Your task to perform on an android device: turn on data saver in the chrome app Image 0: 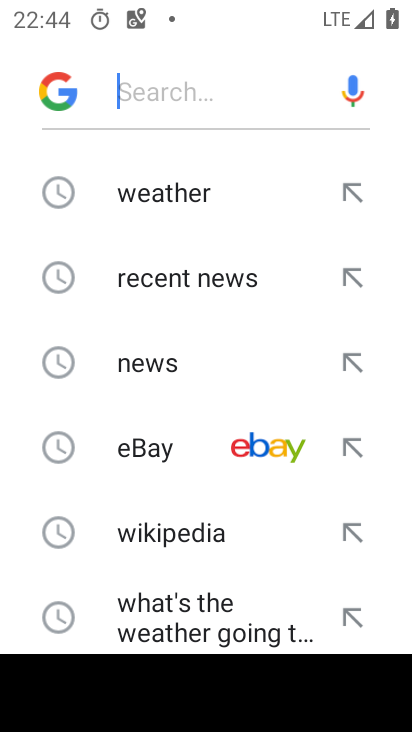
Step 0: press home button
Your task to perform on an android device: turn on data saver in the chrome app Image 1: 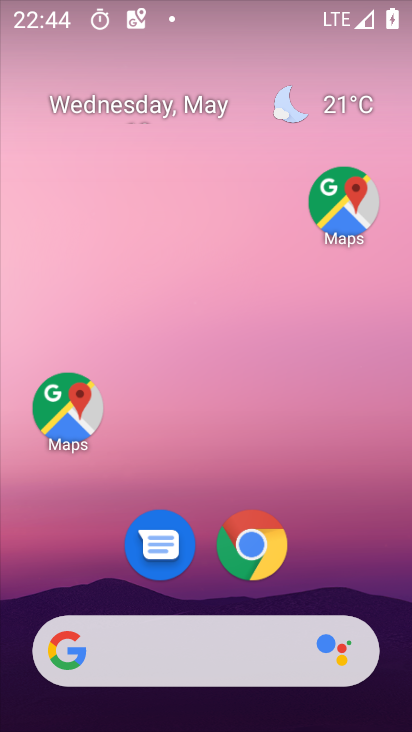
Step 1: click (255, 528)
Your task to perform on an android device: turn on data saver in the chrome app Image 2: 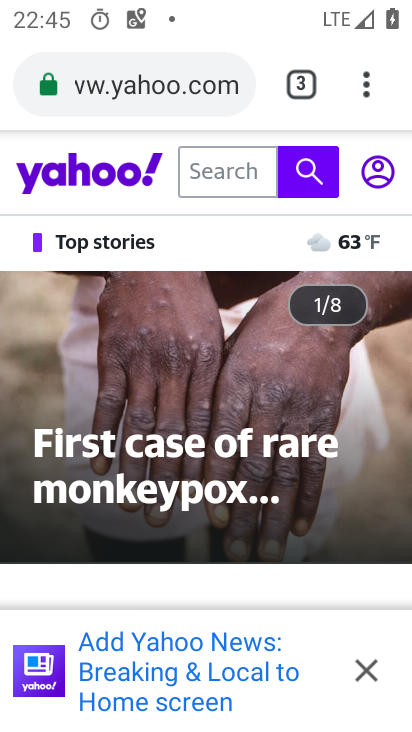
Step 2: click (373, 83)
Your task to perform on an android device: turn on data saver in the chrome app Image 3: 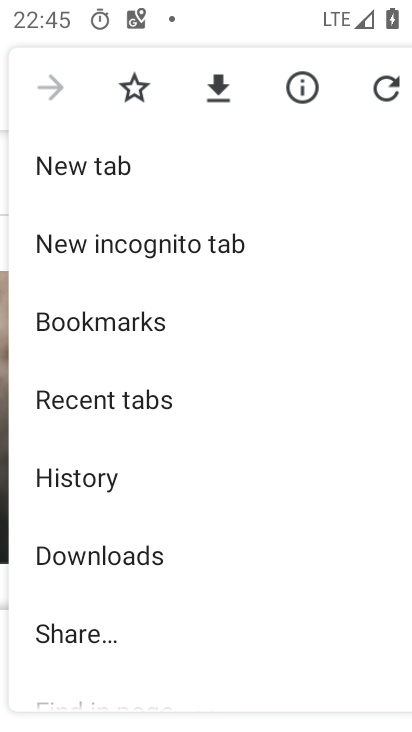
Step 3: drag from (161, 633) to (155, 299)
Your task to perform on an android device: turn on data saver in the chrome app Image 4: 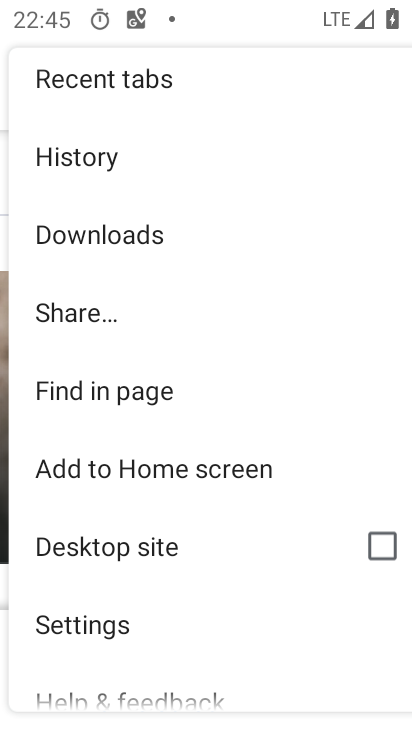
Step 4: click (93, 637)
Your task to perform on an android device: turn on data saver in the chrome app Image 5: 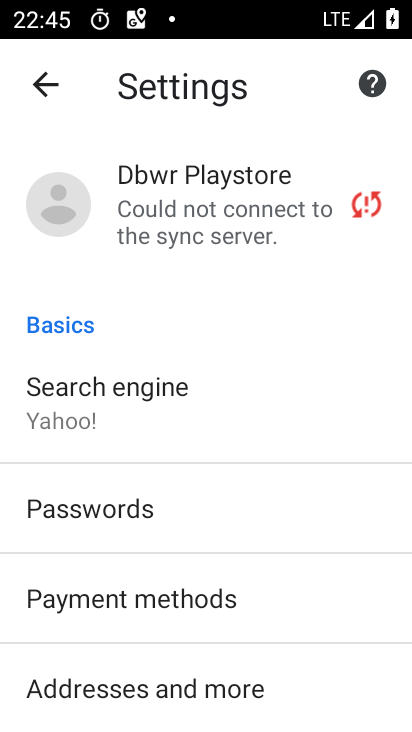
Step 5: drag from (173, 614) to (177, 338)
Your task to perform on an android device: turn on data saver in the chrome app Image 6: 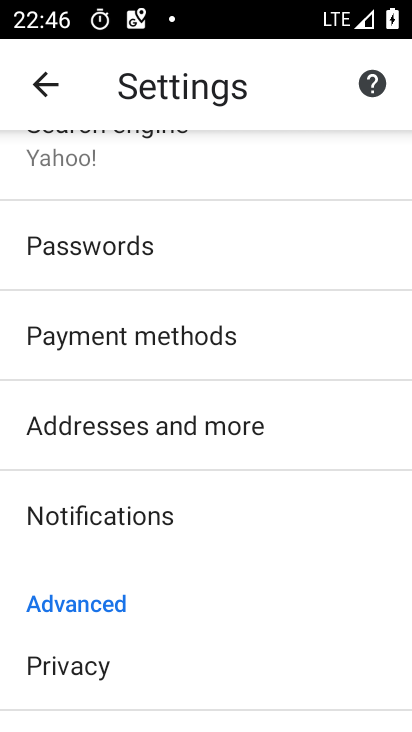
Step 6: drag from (172, 598) to (273, 121)
Your task to perform on an android device: turn on data saver in the chrome app Image 7: 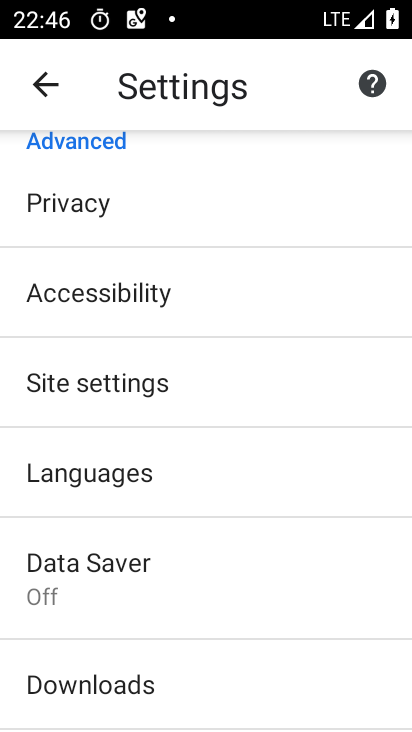
Step 7: click (123, 614)
Your task to perform on an android device: turn on data saver in the chrome app Image 8: 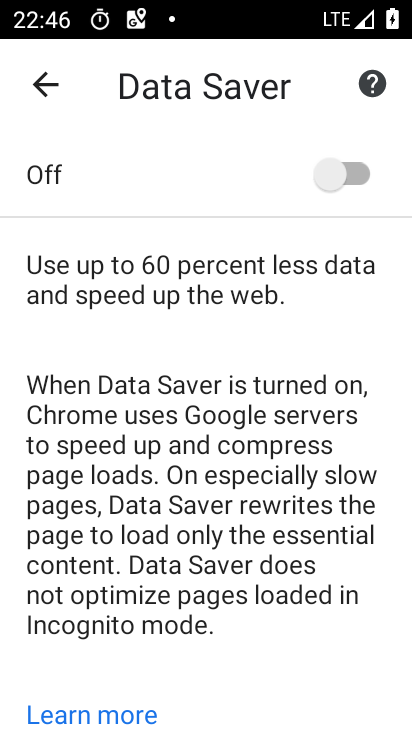
Step 8: click (364, 176)
Your task to perform on an android device: turn on data saver in the chrome app Image 9: 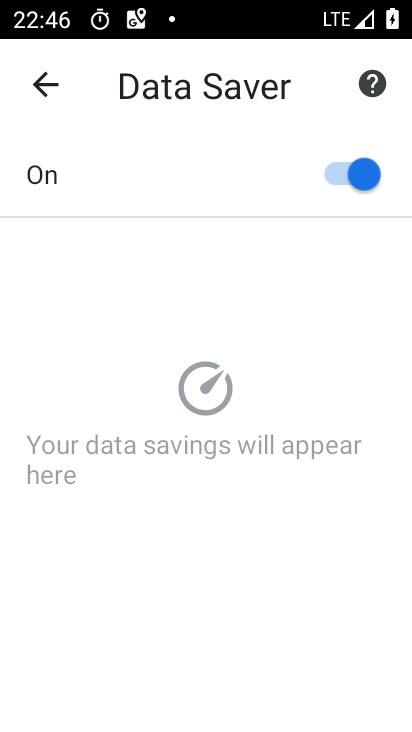
Step 9: task complete